Your task to perform on an android device: set an alarm Image 0: 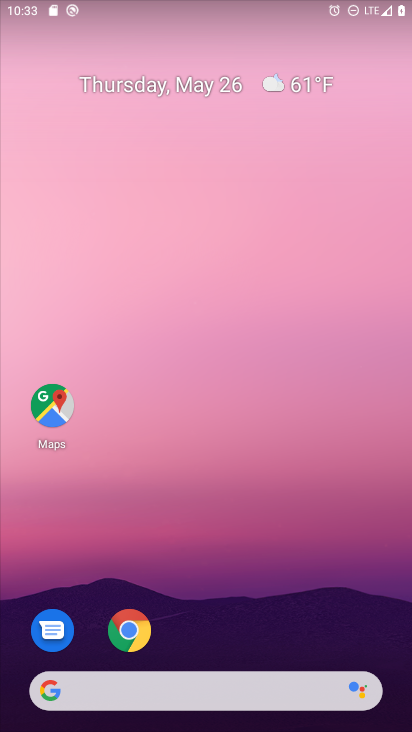
Step 0: drag from (193, 662) to (371, 553)
Your task to perform on an android device: set an alarm Image 1: 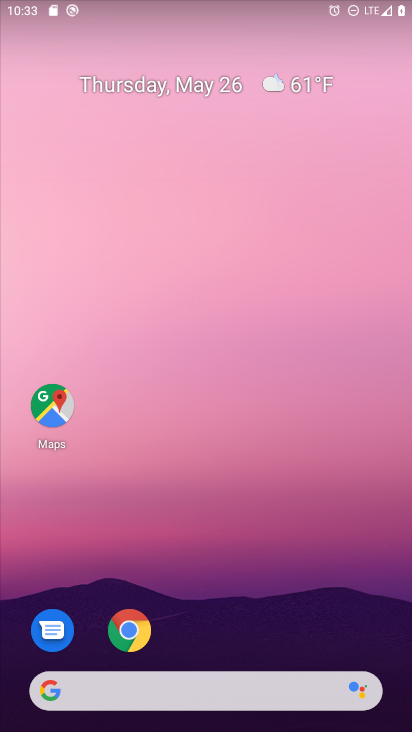
Step 1: drag from (193, 661) to (186, 8)
Your task to perform on an android device: set an alarm Image 2: 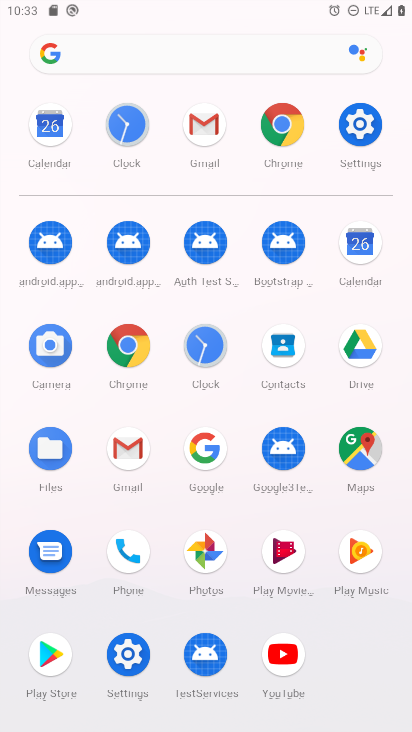
Step 2: click (196, 360)
Your task to perform on an android device: set an alarm Image 3: 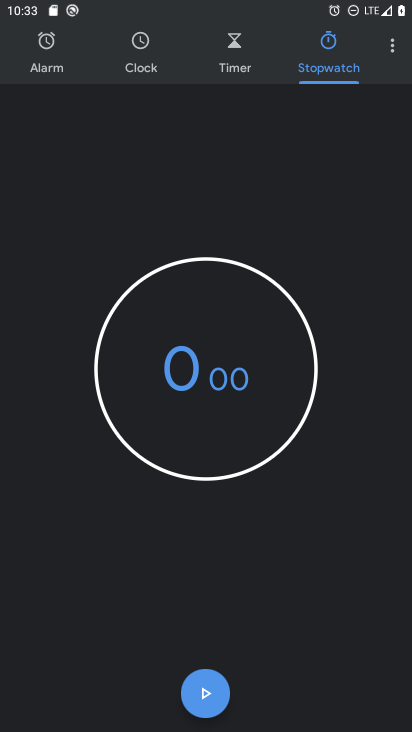
Step 3: click (49, 58)
Your task to perform on an android device: set an alarm Image 4: 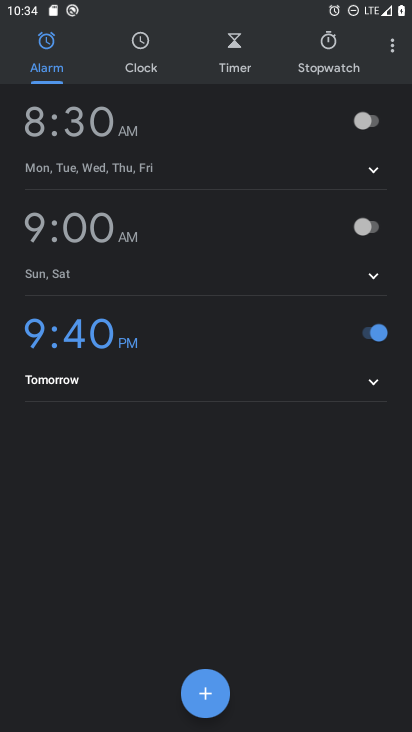
Step 4: click (202, 692)
Your task to perform on an android device: set an alarm Image 5: 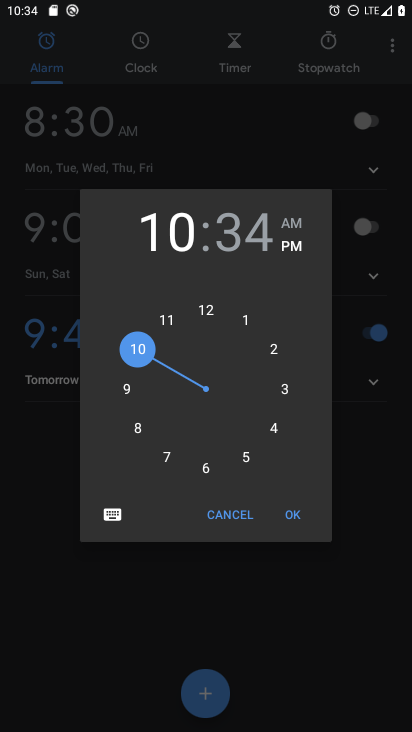
Step 5: click (285, 510)
Your task to perform on an android device: set an alarm Image 6: 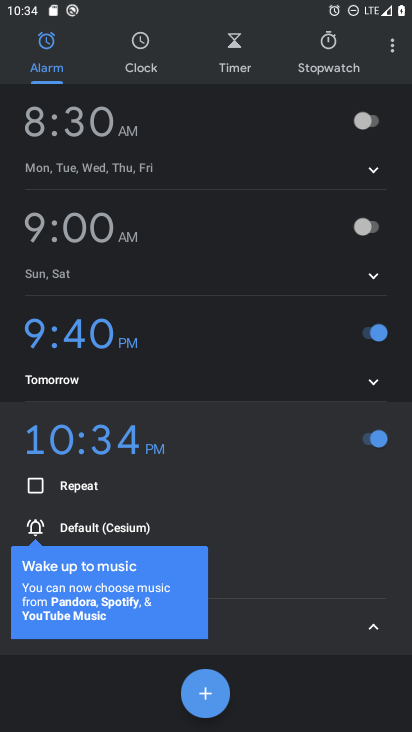
Step 6: task complete